Your task to perform on an android device: toggle wifi Image 0: 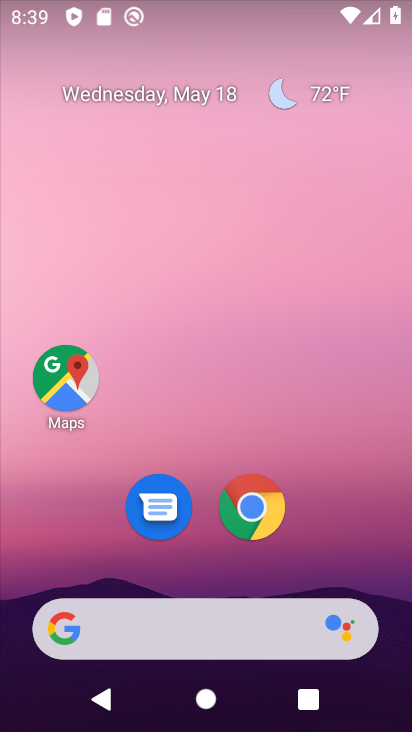
Step 0: drag from (181, 14) to (192, 372)
Your task to perform on an android device: toggle wifi Image 1: 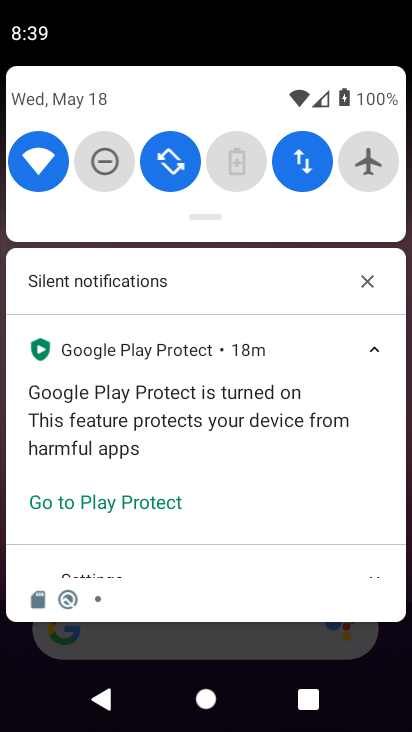
Step 1: click (38, 154)
Your task to perform on an android device: toggle wifi Image 2: 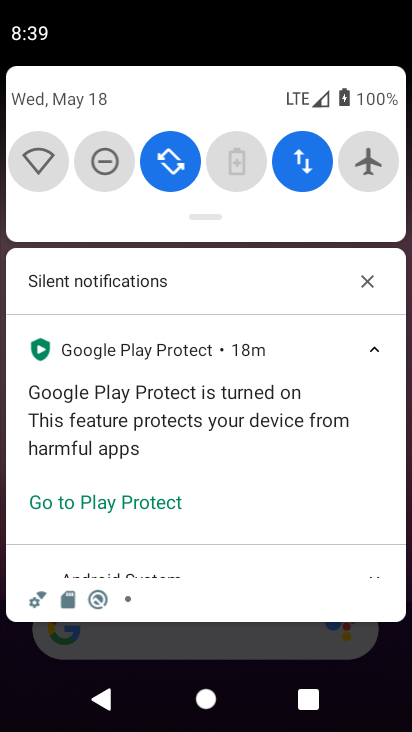
Step 2: task complete